Your task to perform on an android device: install app "Pluto TV - Live TV and Movies" Image 0: 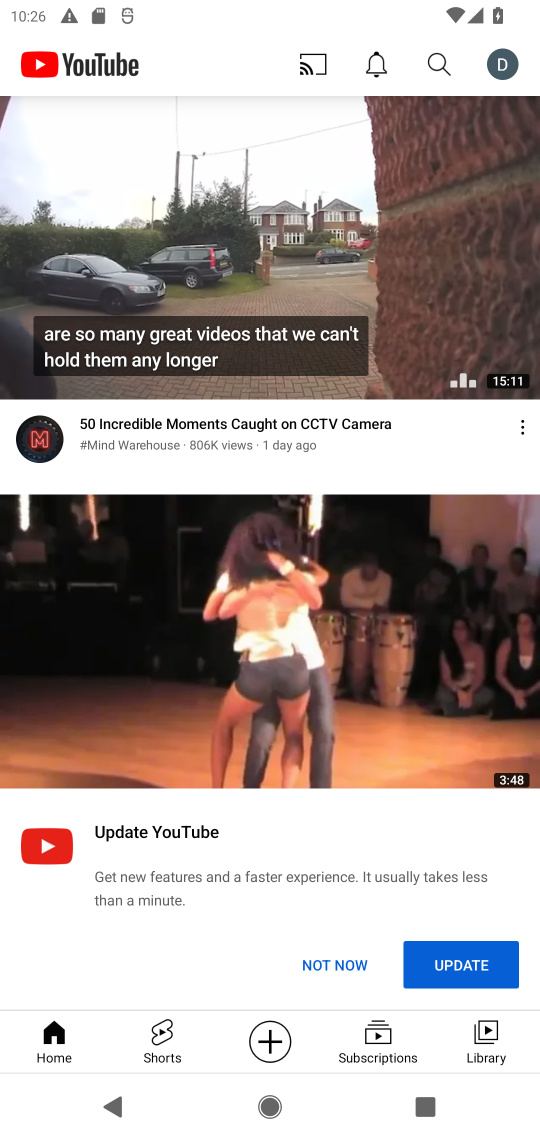
Step 0: press home button
Your task to perform on an android device: install app "Pluto TV - Live TV and Movies" Image 1: 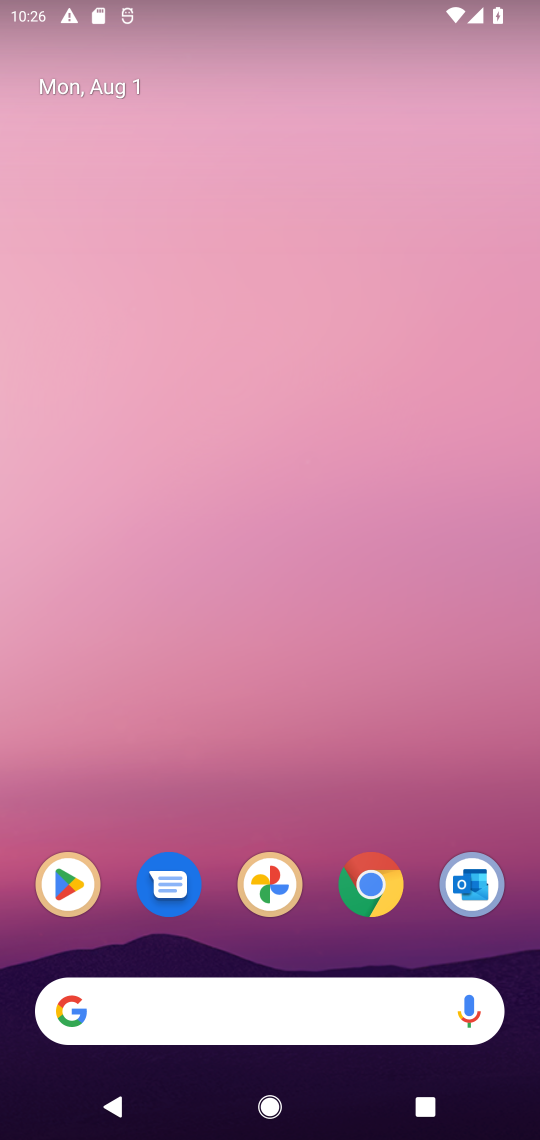
Step 1: click (66, 874)
Your task to perform on an android device: install app "Pluto TV - Live TV and Movies" Image 2: 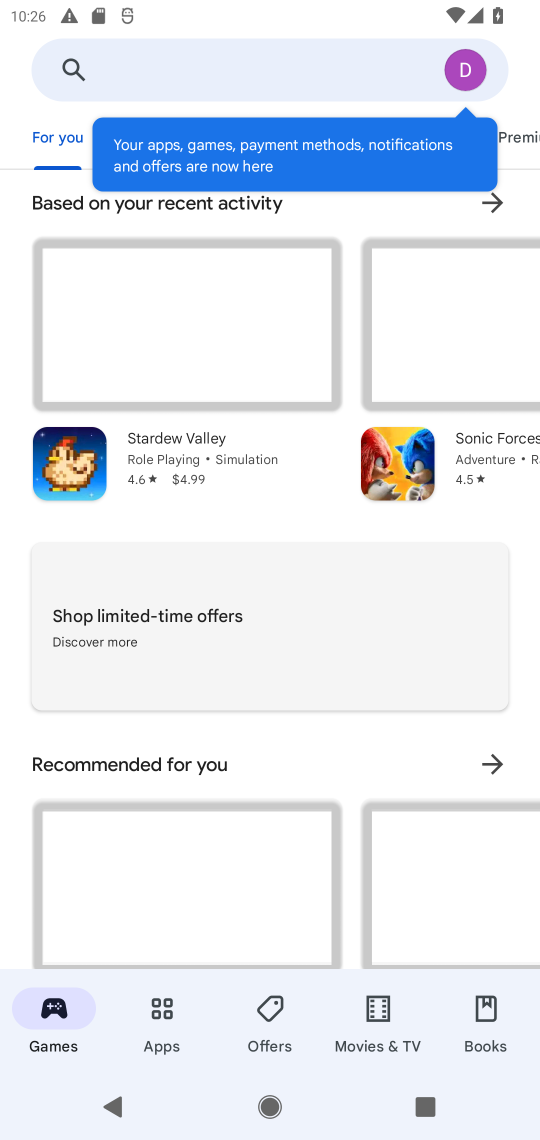
Step 2: click (295, 54)
Your task to perform on an android device: install app "Pluto TV - Live TV and Movies" Image 3: 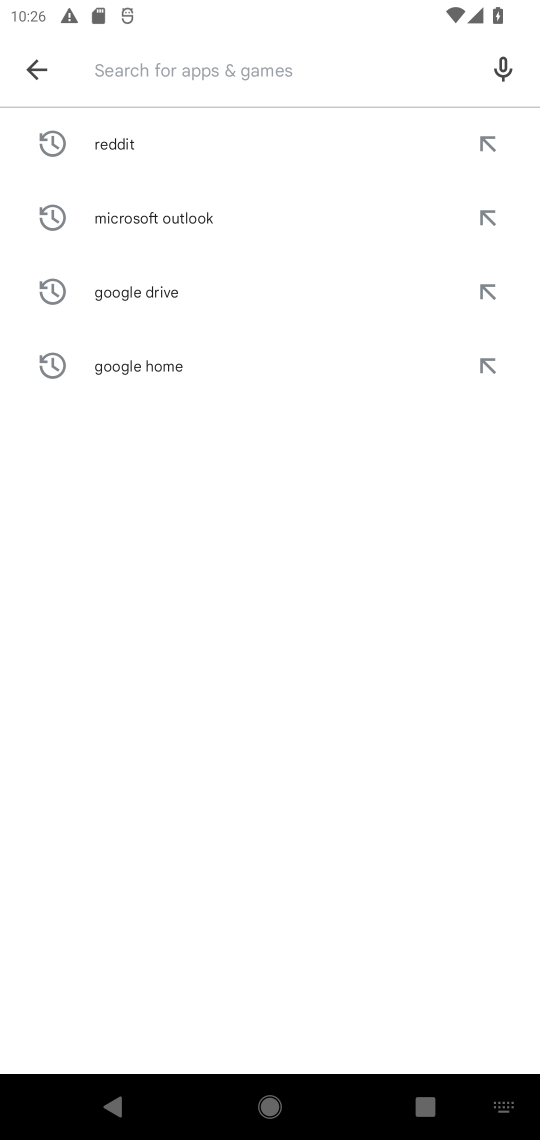
Step 3: type "pluto tv - live tv and movies"
Your task to perform on an android device: install app "Pluto TV - Live TV and Movies" Image 4: 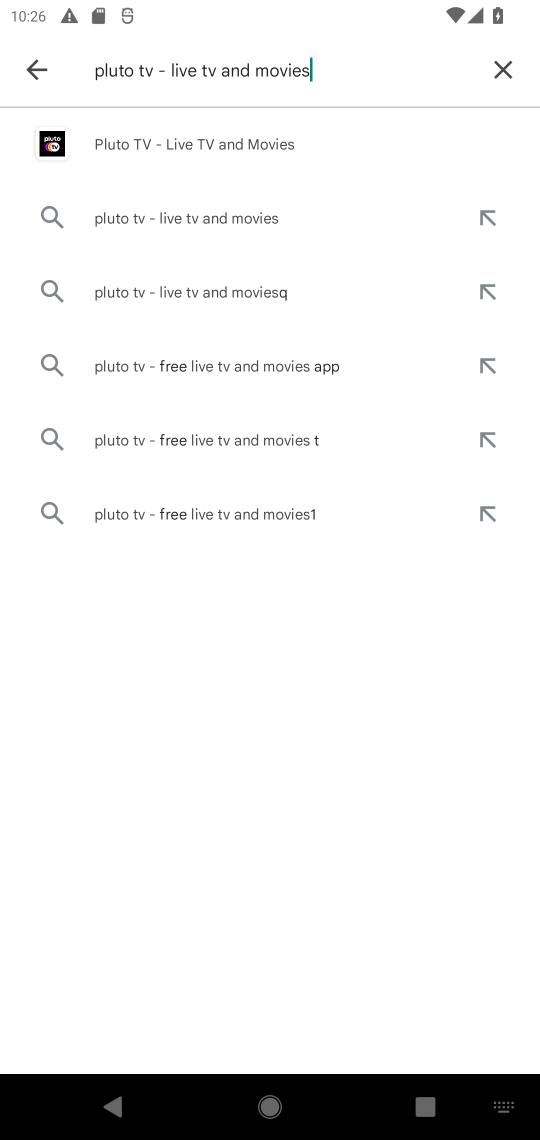
Step 4: click (156, 139)
Your task to perform on an android device: install app "Pluto TV - Live TV and Movies" Image 5: 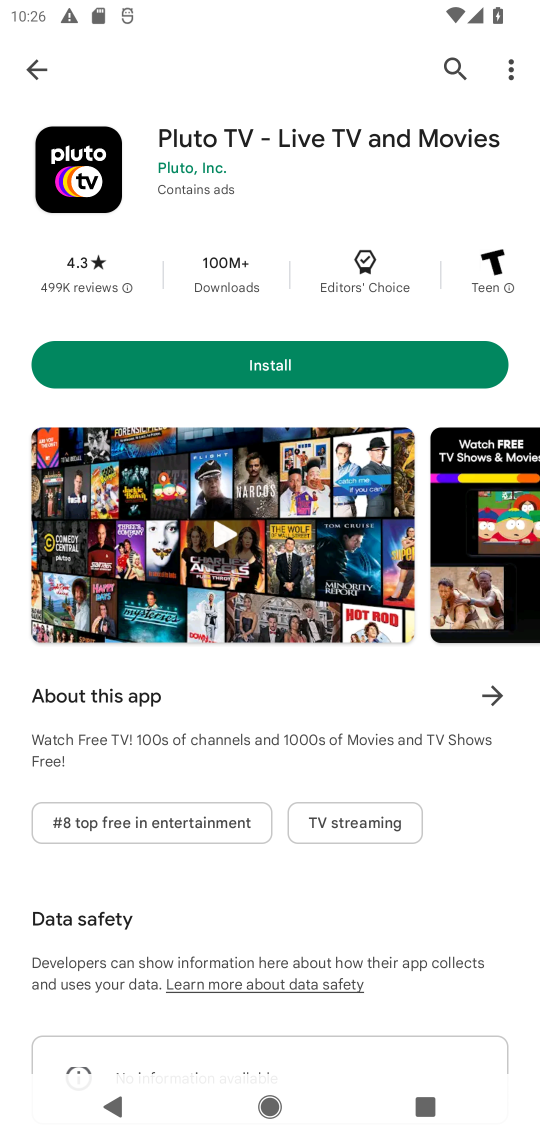
Step 5: click (318, 377)
Your task to perform on an android device: install app "Pluto TV - Live TV and Movies" Image 6: 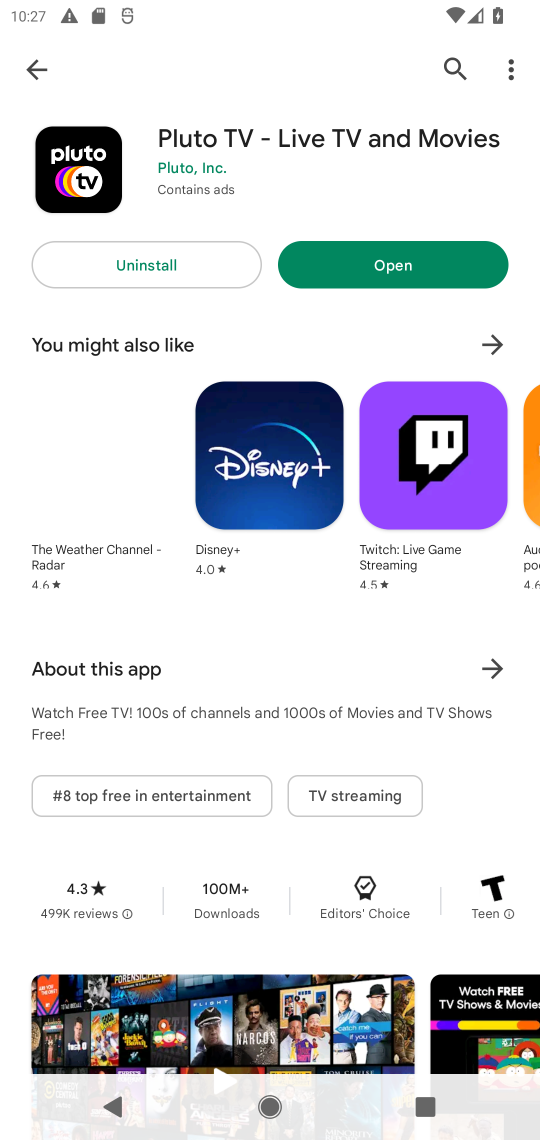
Step 6: task complete